Your task to perform on an android device: Play the last video I watched on Youtube Image 0: 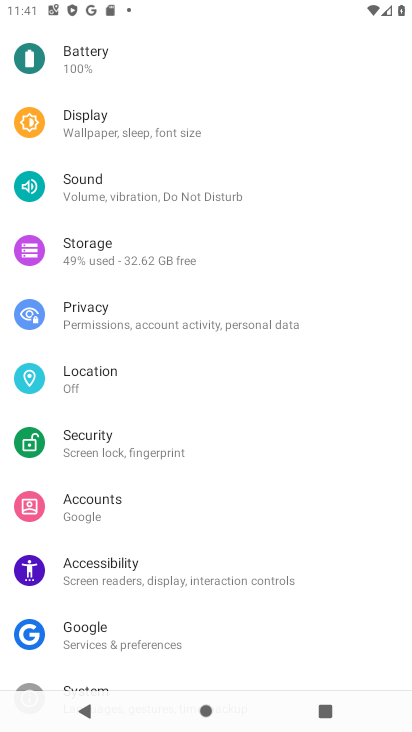
Step 0: press home button
Your task to perform on an android device: Play the last video I watched on Youtube Image 1: 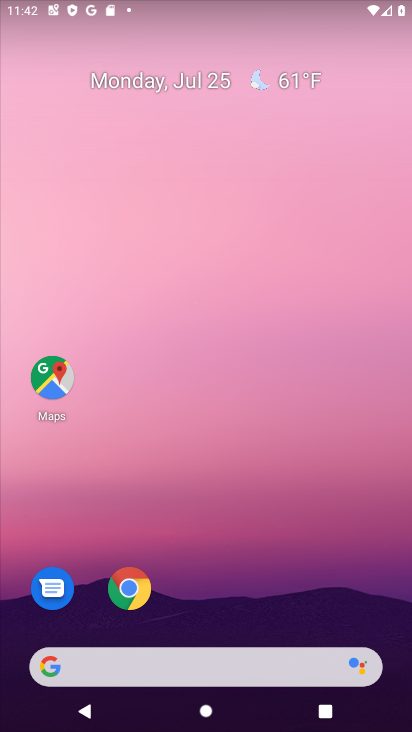
Step 1: drag from (213, 633) to (241, 5)
Your task to perform on an android device: Play the last video I watched on Youtube Image 2: 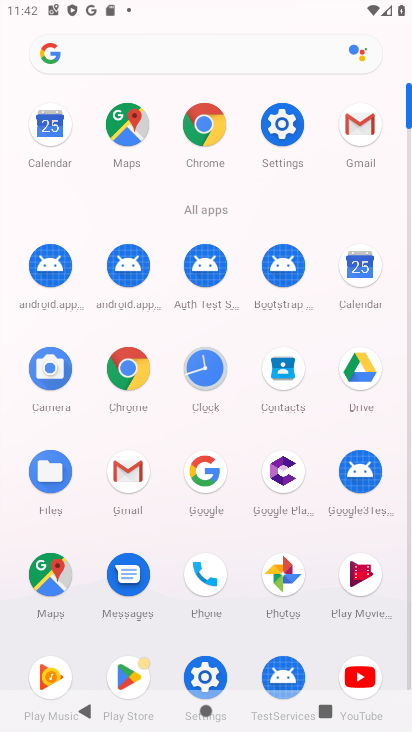
Step 2: click (360, 670)
Your task to perform on an android device: Play the last video I watched on Youtube Image 3: 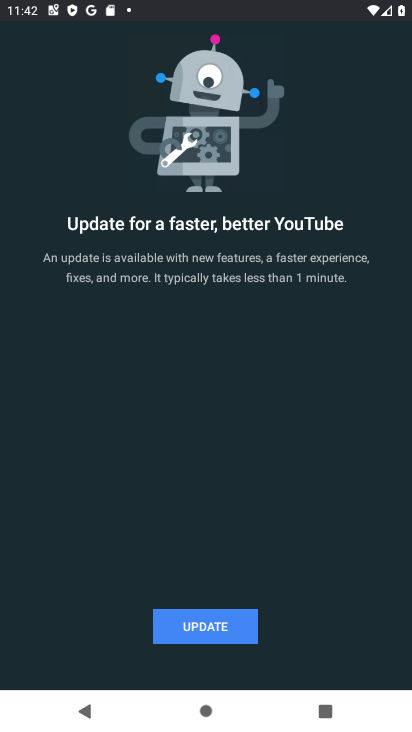
Step 3: click (221, 626)
Your task to perform on an android device: Play the last video I watched on Youtube Image 4: 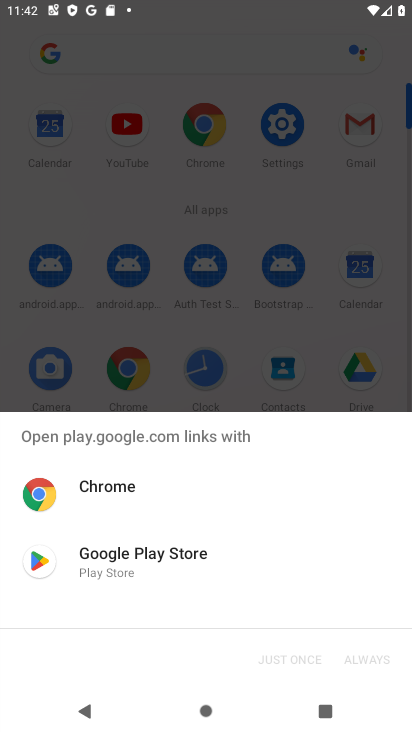
Step 4: click (69, 561)
Your task to perform on an android device: Play the last video I watched on Youtube Image 5: 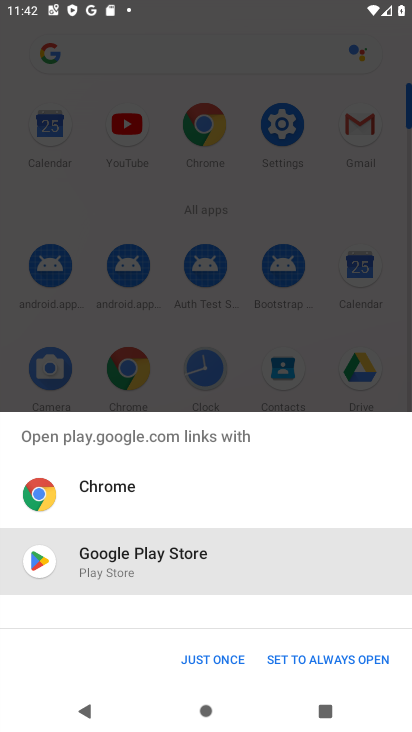
Step 5: click (208, 658)
Your task to perform on an android device: Play the last video I watched on Youtube Image 6: 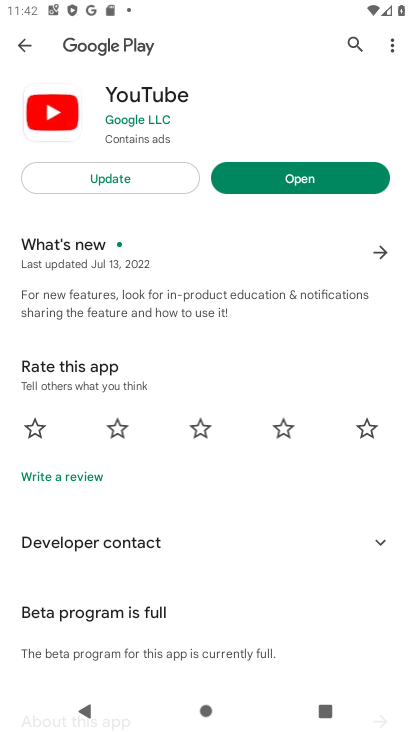
Step 6: click (106, 180)
Your task to perform on an android device: Play the last video I watched on Youtube Image 7: 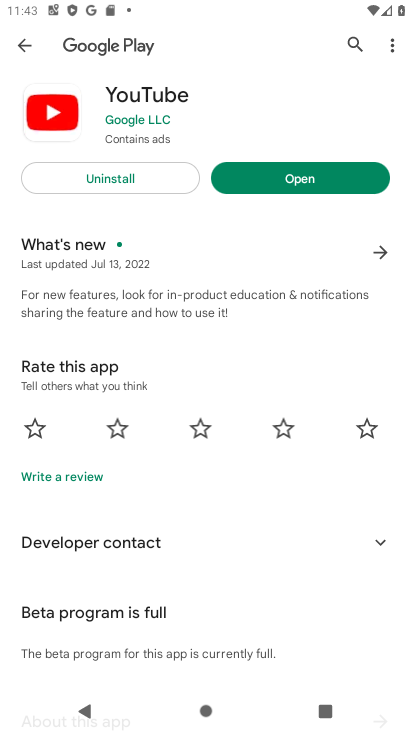
Step 7: click (302, 179)
Your task to perform on an android device: Play the last video I watched on Youtube Image 8: 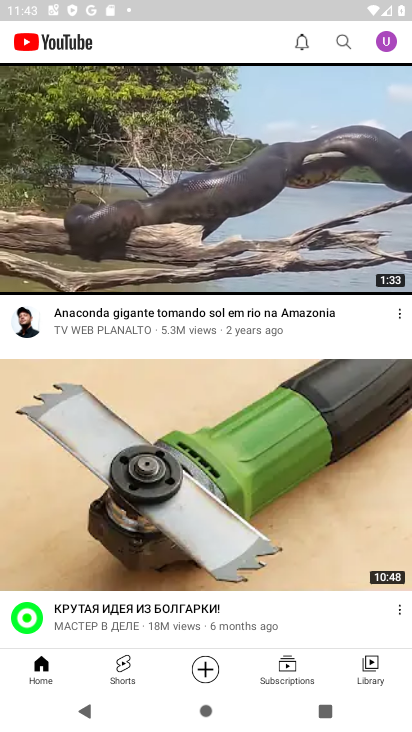
Step 8: click (389, 40)
Your task to perform on an android device: Play the last video I watched on Youtube Image 9: 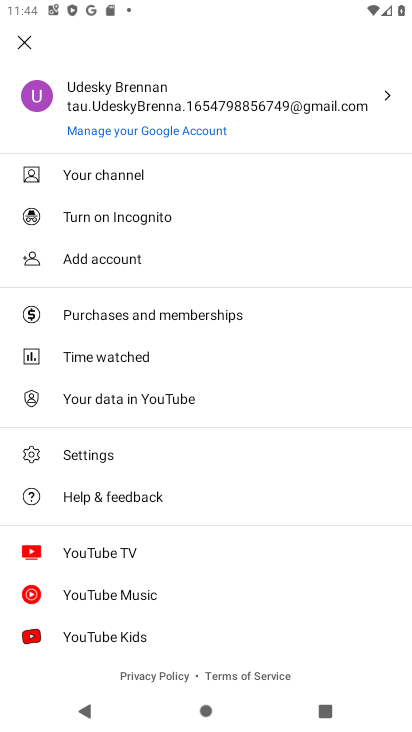
Step 9: click (29, 39)
Your task to perform on an android device: Play the last video I watched on Youtube Image 10: 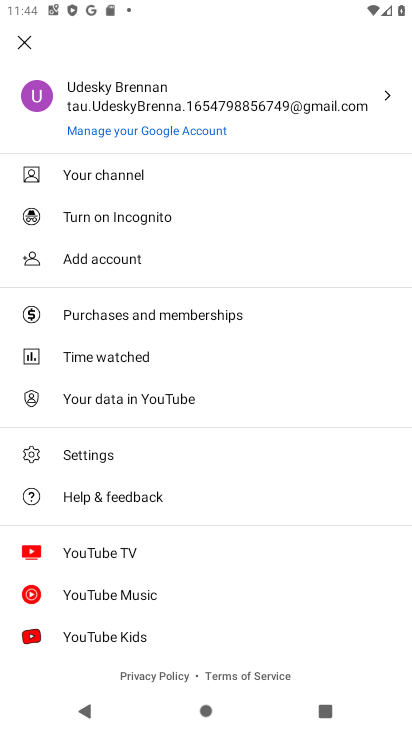
Step 10: click (29, 41)
Your task to perform on an android device: Play the last video I watched on Youtube Image 11: 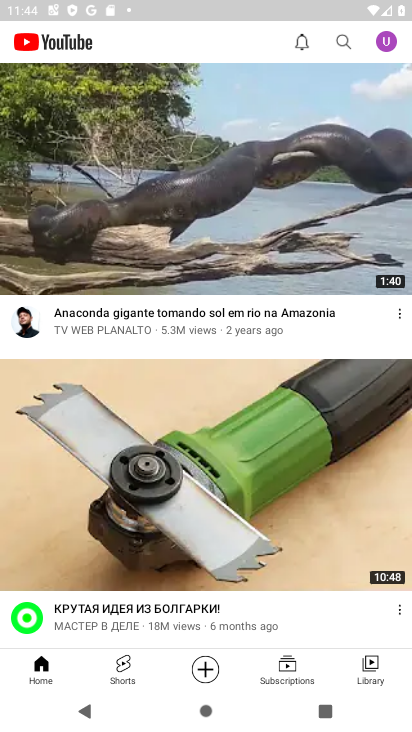
Step 11: click (372, 665)
Your task to perform on an android device: Play the last video I watched on Youtube Image 12: 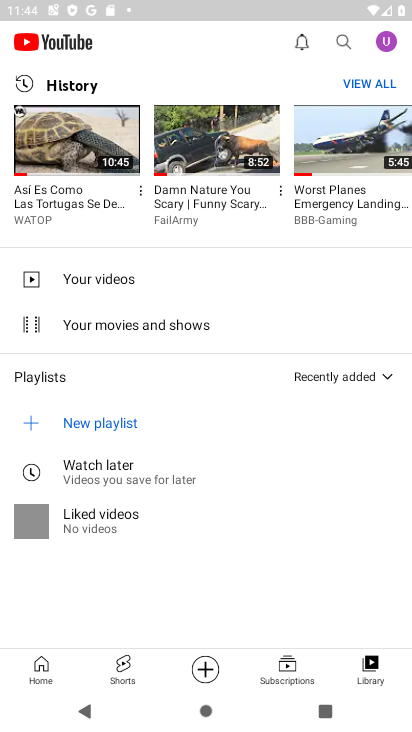
Step 12: click (64, 129)
Your task to perform on an android device: Play the last video I watched on Youtube Image 13: 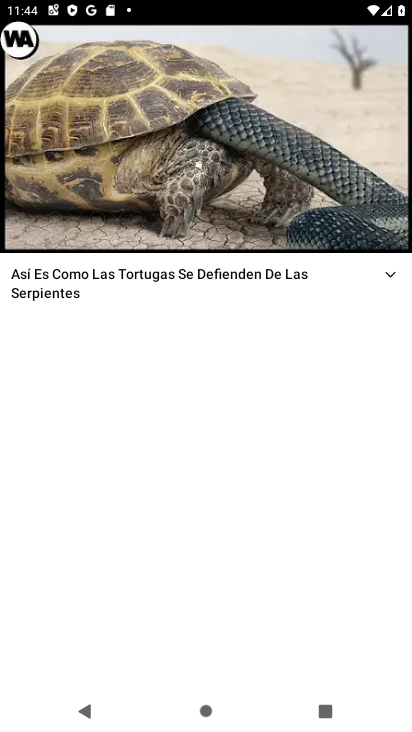
Step 13: task complete